Your task to perform on an android device: toggle show notifications on the lock screen Image 0: 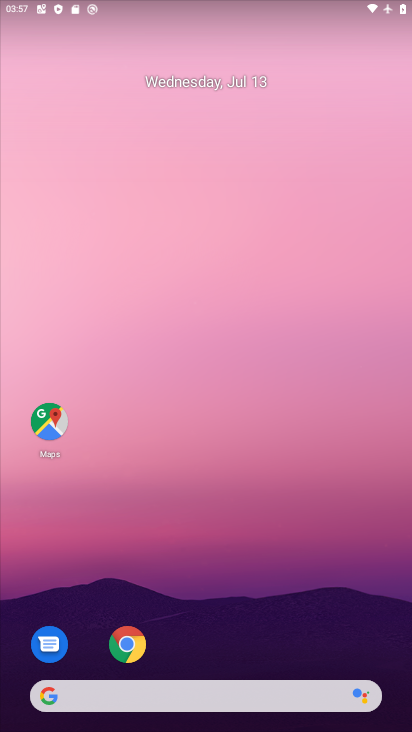
Step 0: drag from (260, 477) to (202, 41)
Your task to perform on an android device: toggle show notifications on the lock screen Image 1: 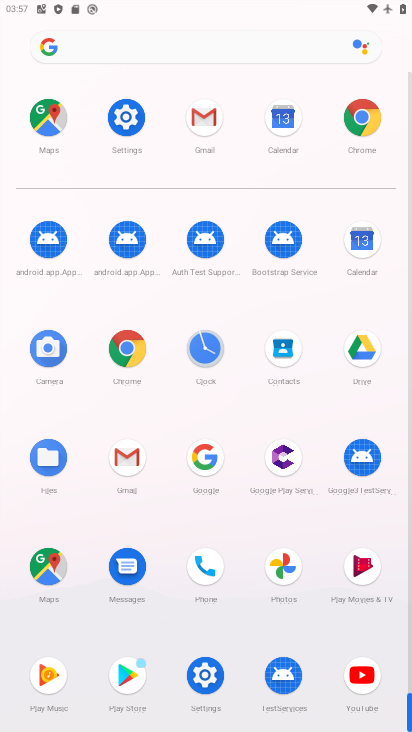
Step 1: click (122, 116)
Your task to perform on an android device: toggle show notifications on the lock screen Image 2: 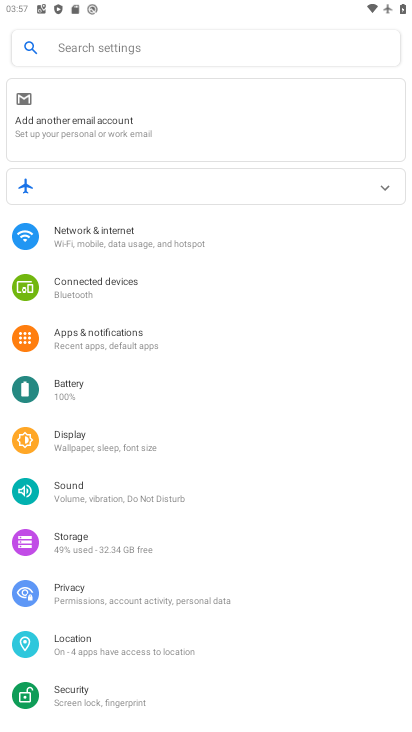
Step 2: drag from (117, 626) to (161, 234)
Your task to perform on an android device: toggle show notifications on the lock screen Image 3: 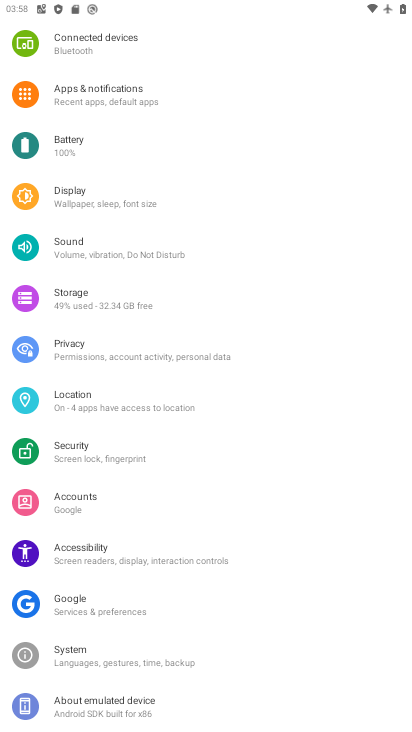
Step 3: click (119, 90)
Your task to perform on an android device: toggle show notifications on the lock screen Image 4: 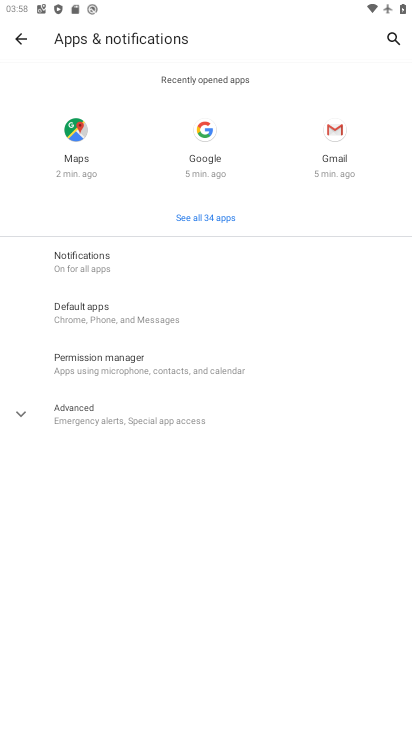
Step 4: click (122, 255)
Your task to perform on an android device: toggle show notifications on the lock screen Image 5: 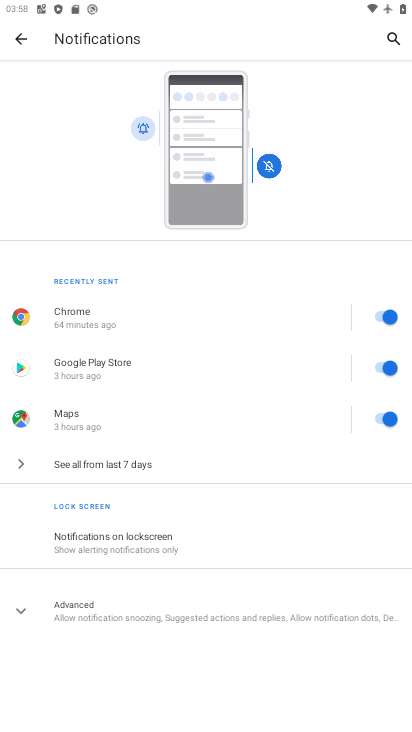
Step 5: click (114, 605)
Your task to perform on an android device: toggle show notifications on the lock screen Image 6: 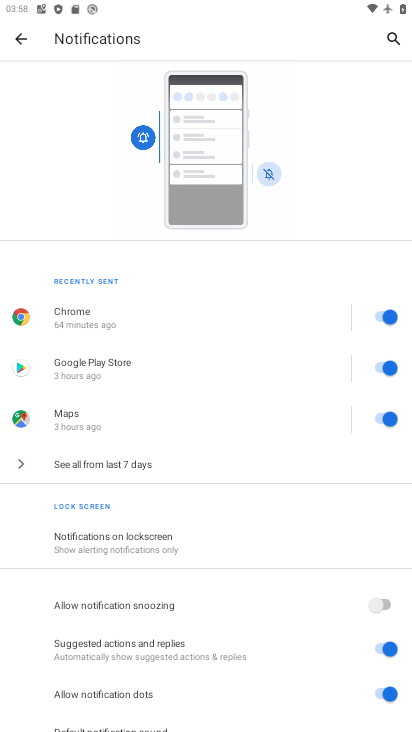
Step 6: drag from (229, 605) to (261, 73)
Your task to perform on an android device: toggle show notifications on the lock screen Image 7: 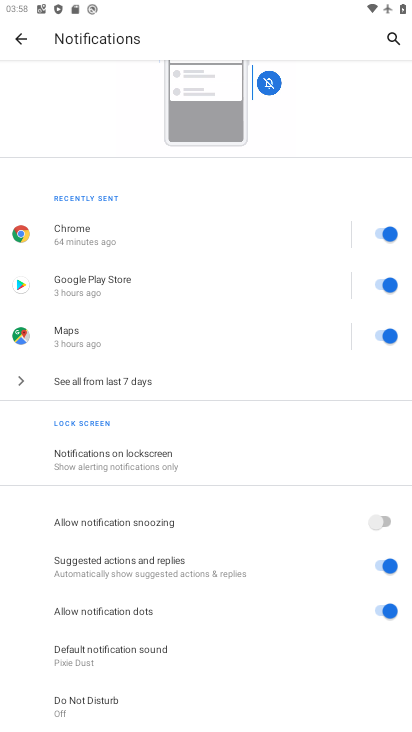
Step 7: click (212, 455)
Your task to perform on an android device: toggle show notifications on the lock screen Image 8: 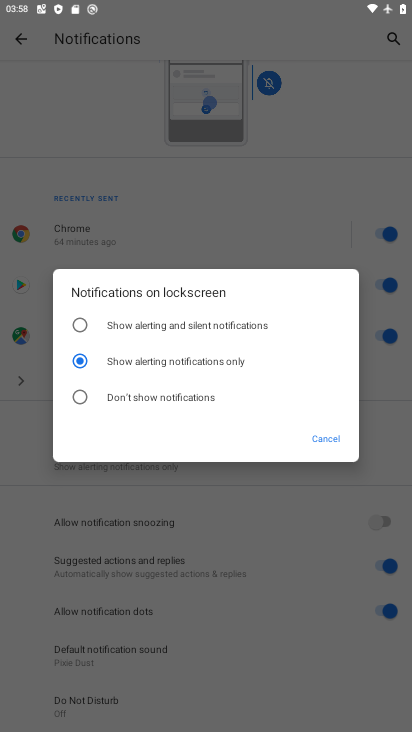
Step 8: click (159, 318)
Your task to perform on an android device: toggle show notifications on the lock screen Image 9: 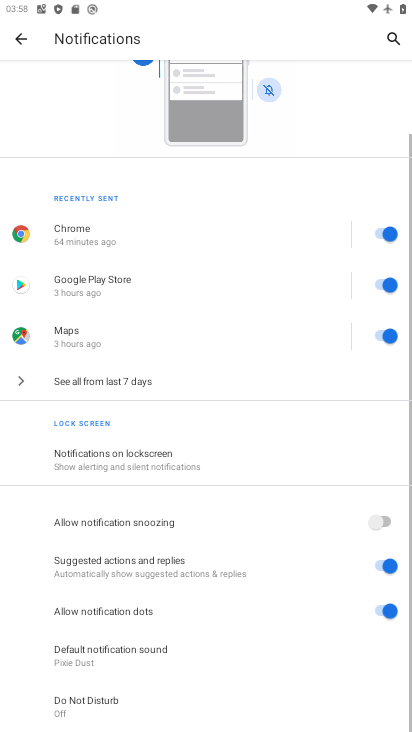
Step 9: task complete